Your task to perform on an android device: Open Chrome and go to settings Image 0: 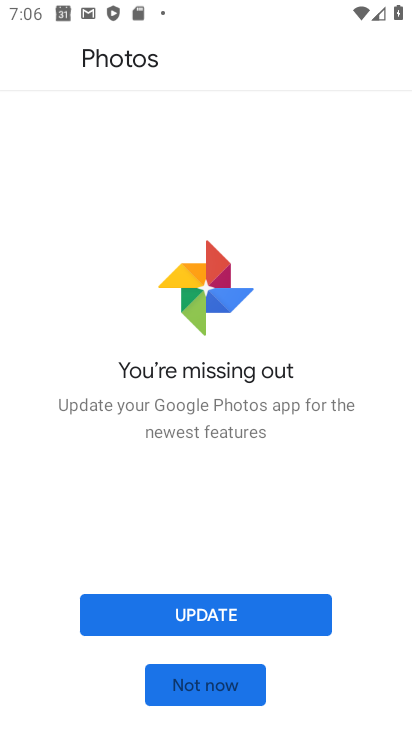
Step 0: press home button
Your task to perform on an android device: Open Chrome and go to settings Image 1: 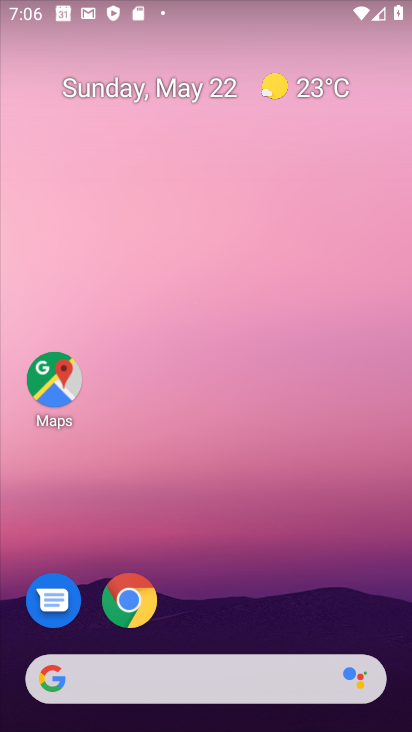
Step 1: drag from (330, 625) to (247, 14)
Your task to perform on an android device: Open Chrome and go to settings Image 2: 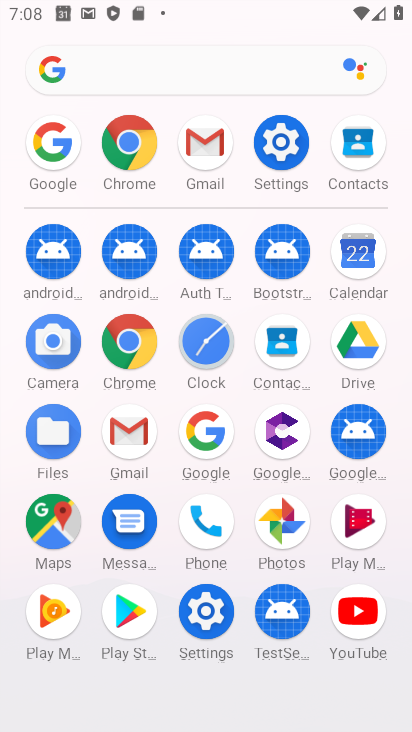
Step 2: click (130, 330)
Your task to perform on an android device: Open Chrome and go to settings Image 3: 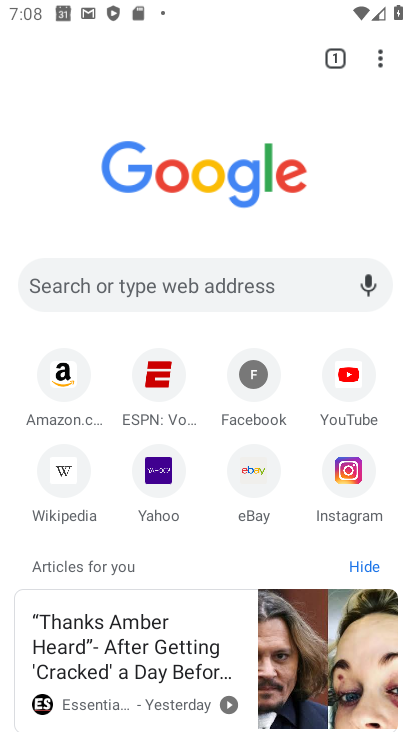
Step 3: click (383, 55)
Your task to perform on an android device: Open Chrome and go to settings Image 4: 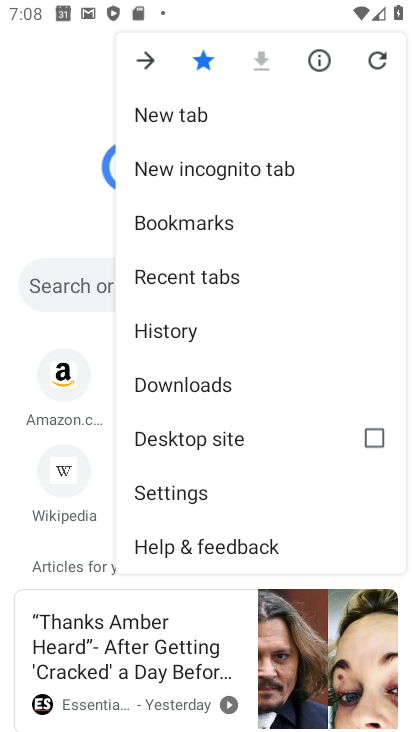
Step 4: click (196, 479)
Your task to perform on an android device: Open Chrome and go to settings Image 5: 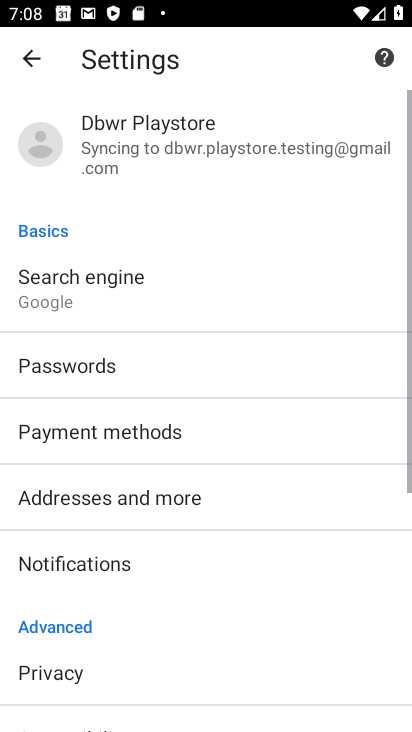
Step 5: task complete